Your task to perform on an android device: turn off airplane mode Image 0: 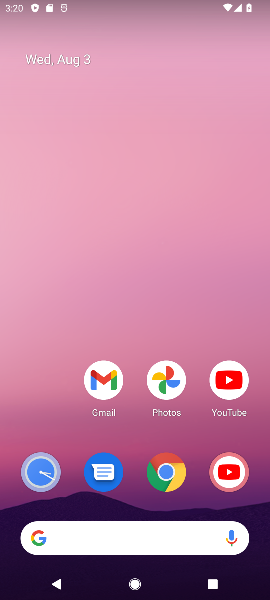
Step 0: drag from (141, 507) to (63, 162)
Your task to perform on an android device: turn off airplane mode Image 1: 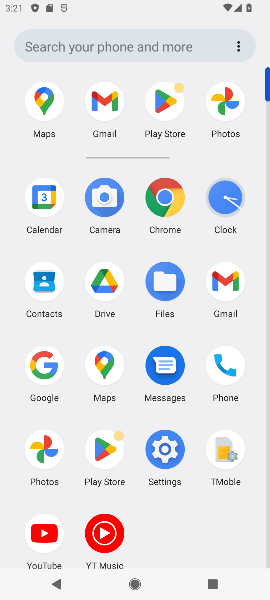
Step 1: task complete